Your task to perform on an android device: change your default location settings in chrome Image 0: 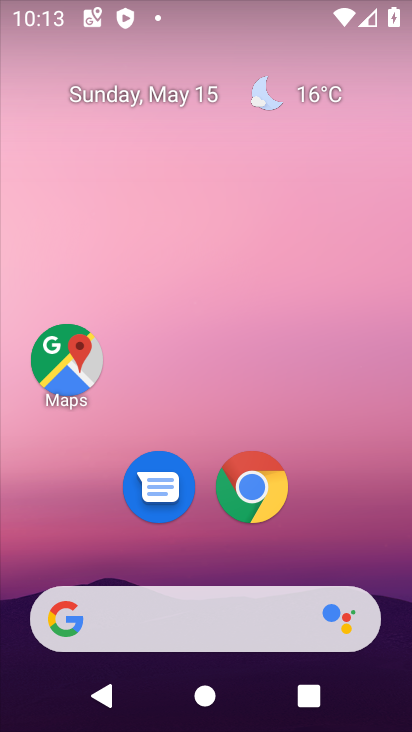
Step 0: click (250, 484)
Your task to perform on an android device: change your default location settings in chrome Image 1: 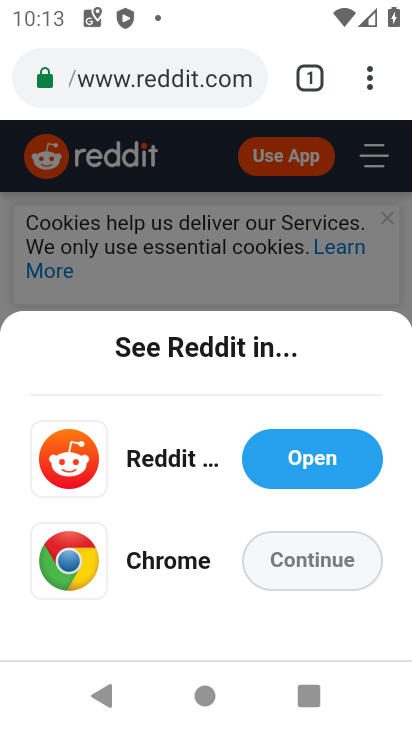
Step 1: click (368, 89)
Your task to perform on an android device: change your default location settings in chrome Image 2: 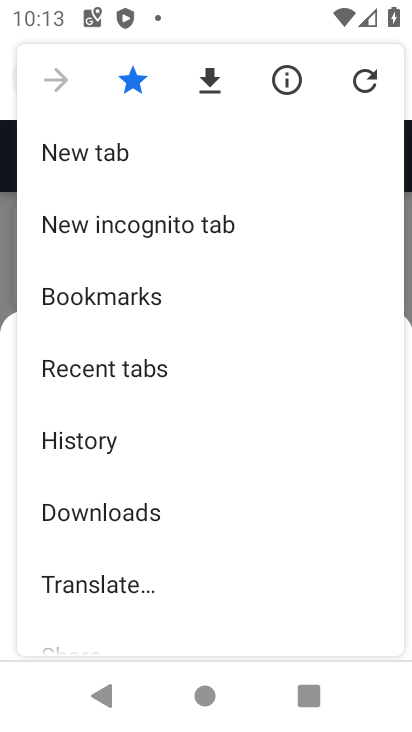
Step 2: drag from (188, 639) to (268, 158)
Your task to perform on an android device: change your default location settings in chrome Image 3: 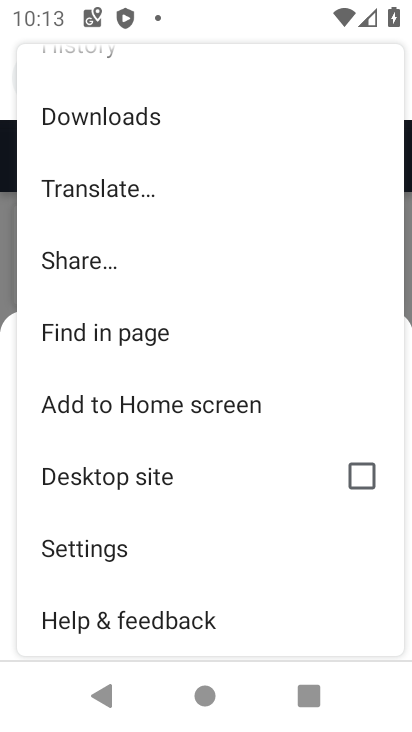
Step 3: click (106, 546)
Your task to perform on an android device: change your default location settings in chrome Image 4: 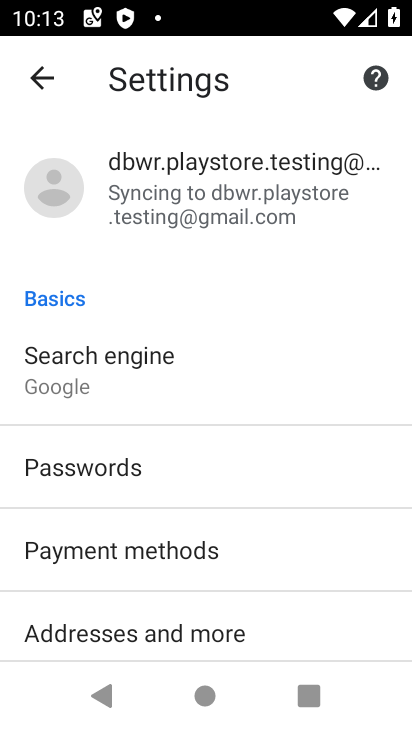
Step 4: drag from (310, 618) to (272, 232)
Your task to perform on an android device: change your default location settings in chrome Image 5: 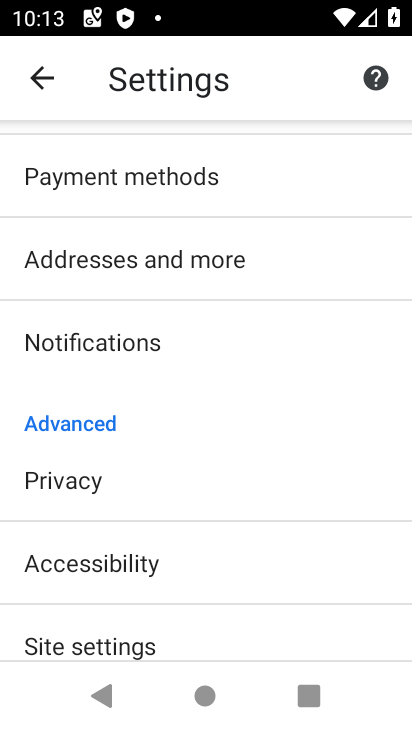
Step 5: drag from (207, 595) to (213, 338)
Your task to perform on an android device: change your default location settings in chrome Image 6: 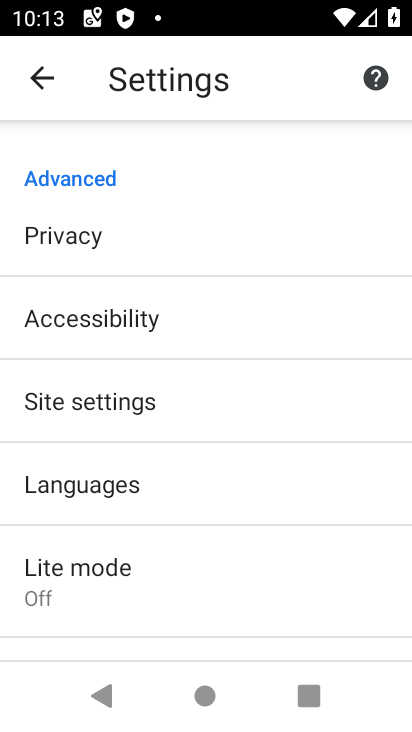
Step 6: click (77, 408)
Your task to perform on an android device: change your default location settings in chrome Image 7: 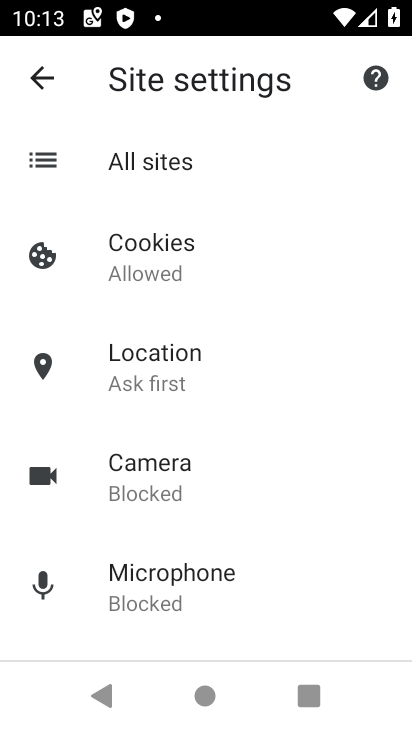
Step 7: click (150, 360)
Your task to perform on an android device: change your default location settings in chrome Image 8: 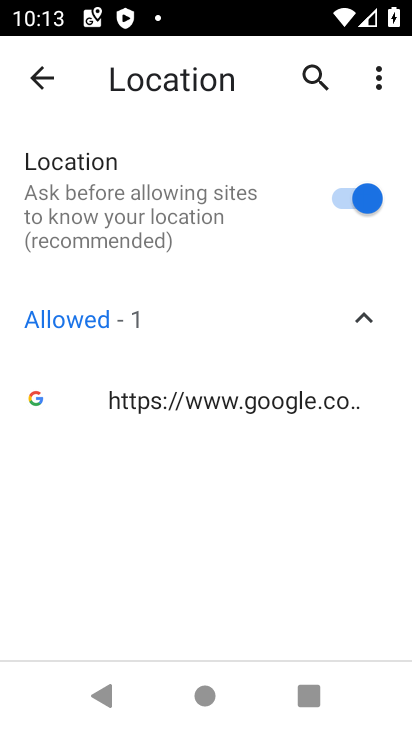
Step 8: click (346, 201)
Your task to perform on an android device: change your default location settings in chrome Image 9: 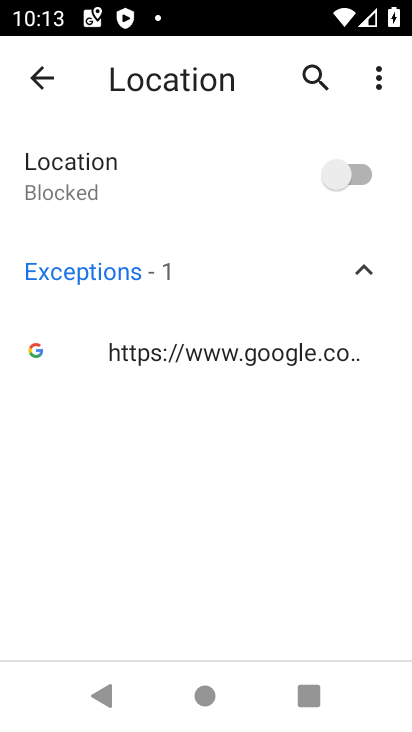
Step 9: task complete